Your task to perform on an android device: empty trash in the gmail app Image 0: 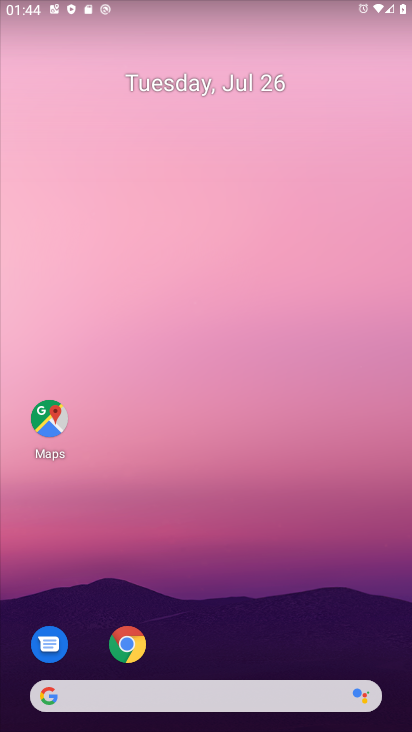
Step 0: drag from (195, 625) to (180, 250)
Your task to perform on an android device: empty trash in the gmail app Image 1: 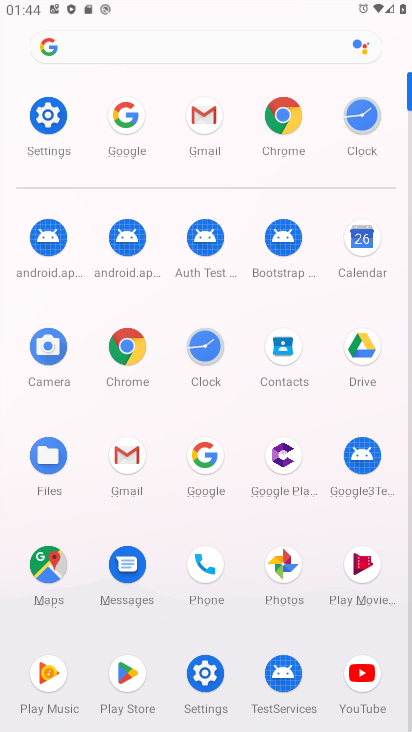
Step 1: click (119, 464)
Your task to perform on an android device: empty trash in the gmail app Image 2: 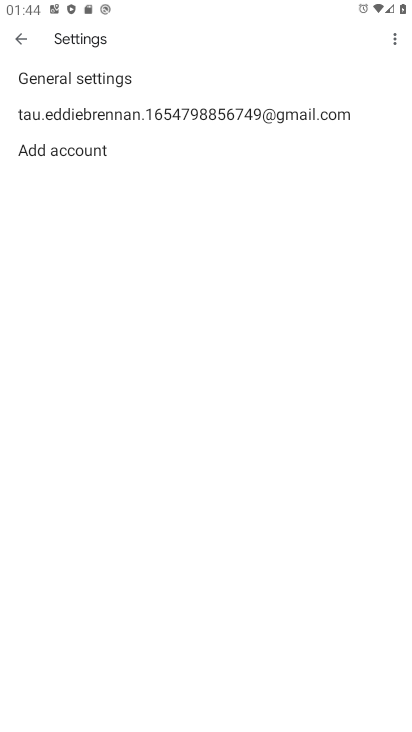
Step 2: click (11, 36)
Your task to perform on an android device: empty trash in the gmail app Image 3: 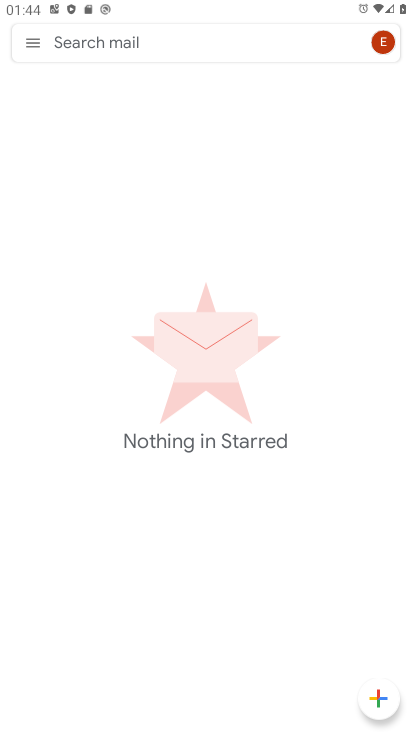
Step 3: click (28, 39)
Your task to perform on an android device: empty trash in the gmail app Image 4: 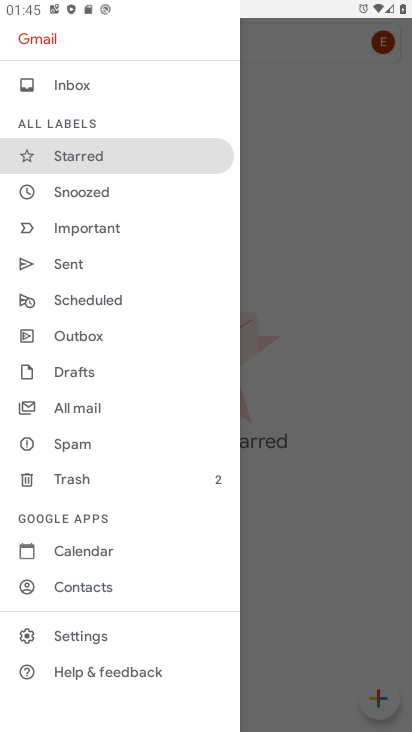
Step 4: click (98, 481)
Your task to perform on an android device: empty trash in the gmail app Image 5: 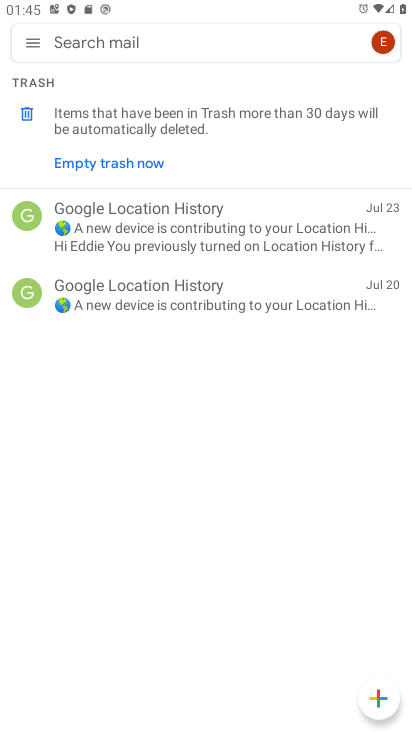
Step 5: click (91, 156)
Your task to perform on an android device: empty trash in the gmail app Image 6: 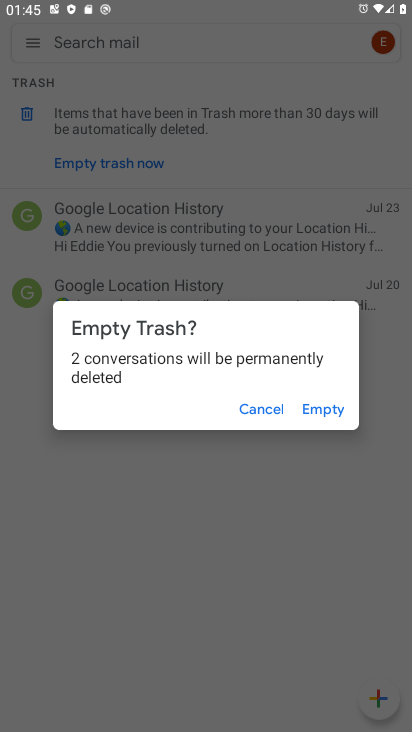
Step 6: click (315, 397)
Your task to perform on an android device: empty trash in the gmail app Image 7: 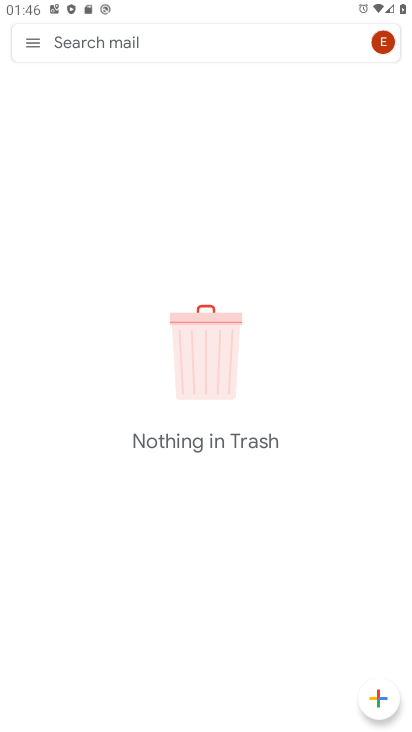
Step 7: task complete